Your task to perform on an android device: Go to wifi settings Image 0: 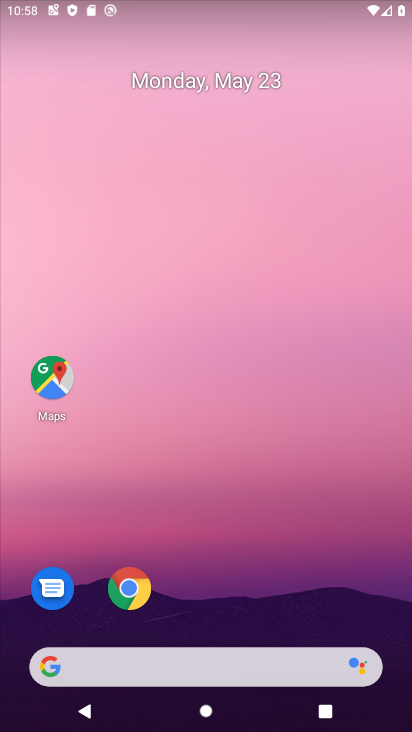
Step 0: drag from (297, 577) to (299, 25)
Your task to perform on an android device: Go to wifi settings Image 1: 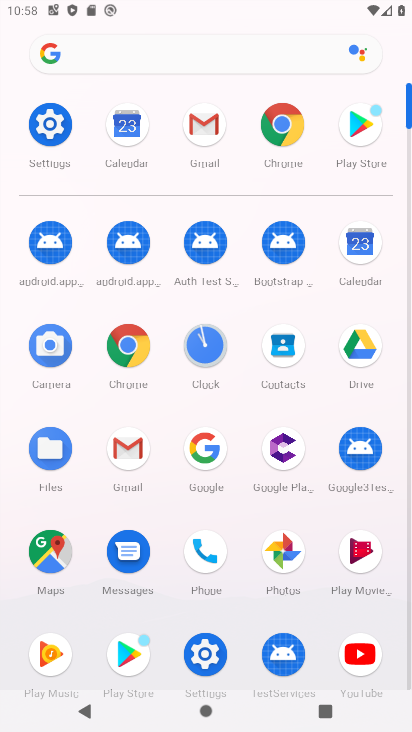
Step 1: click (37, 120)
Your task to perform on an android device: Go to wifi settings Image 2: 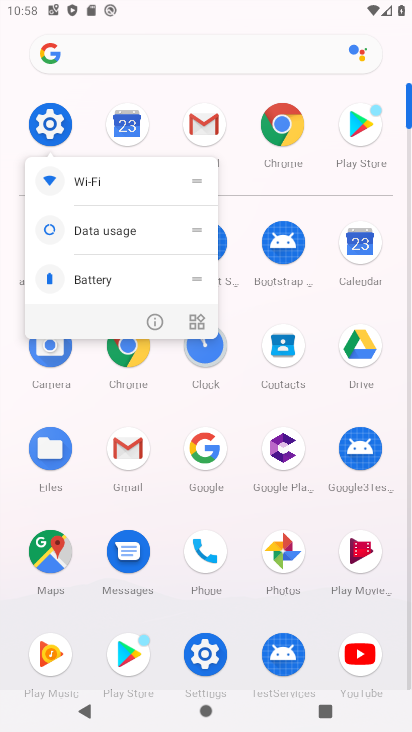
Step 2: click (43, 123)
Your task to perform on an android device: Go to wifi settings Image 3: 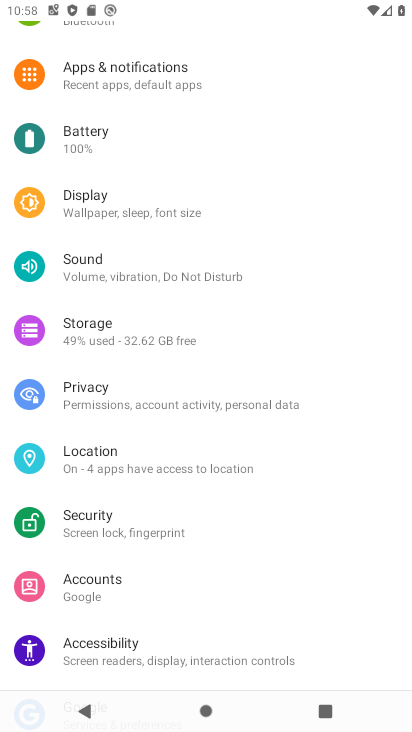
Step 3: drag from (169, 104) to (269, 673)
Your task to perform on an android device: Go to wifi settings Image 4: 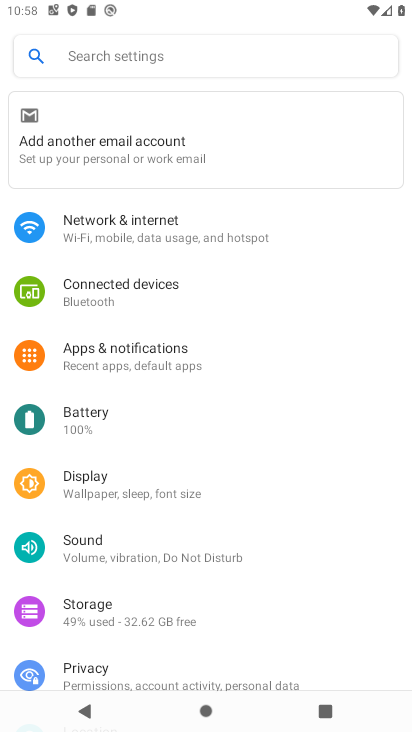
Step 4: click (192, 225)
Your task to perform on an android device: Go to wifi settings Image 5: 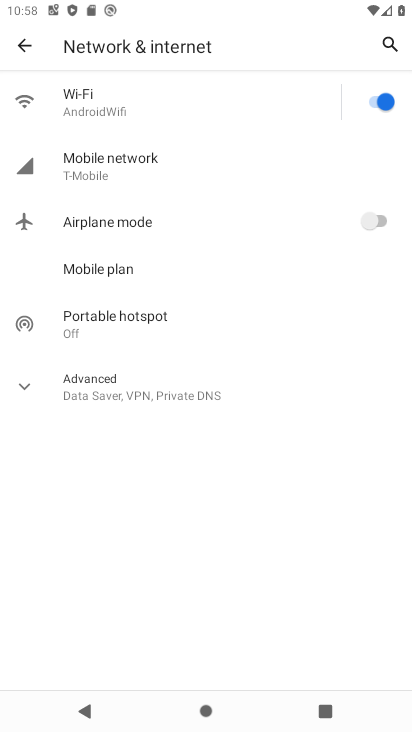
Step 5: click (179, 93)
Your task to perform on an android device: Go to wifi settings Image 6: 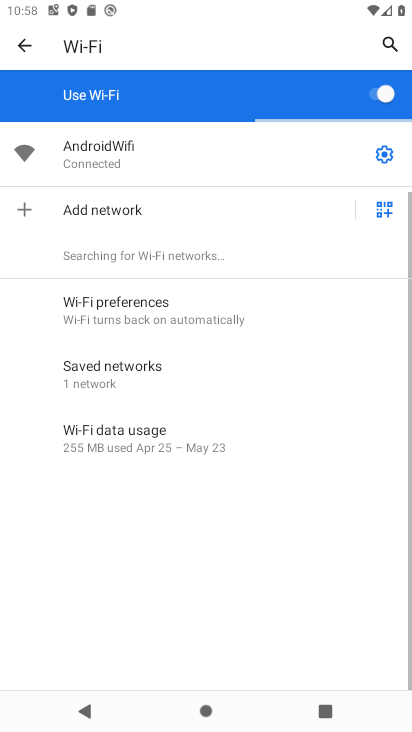
Step 6: click (387, 151)
Your task to perform on an android device: Go to wifi settings Image 7: 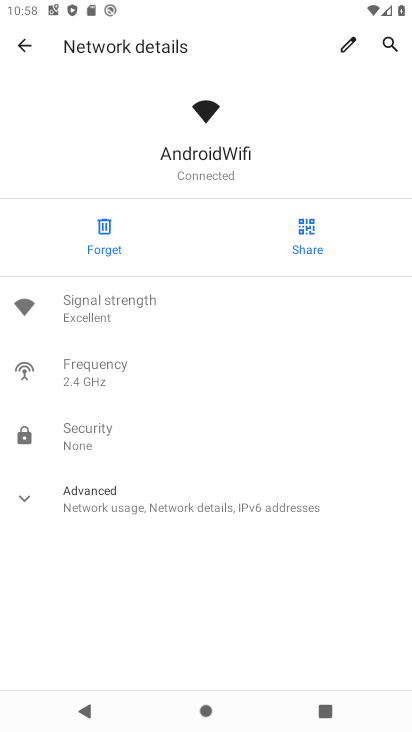
Step 7: task complete